Your task to perform on an android device: Do I have any events today? Image 0: 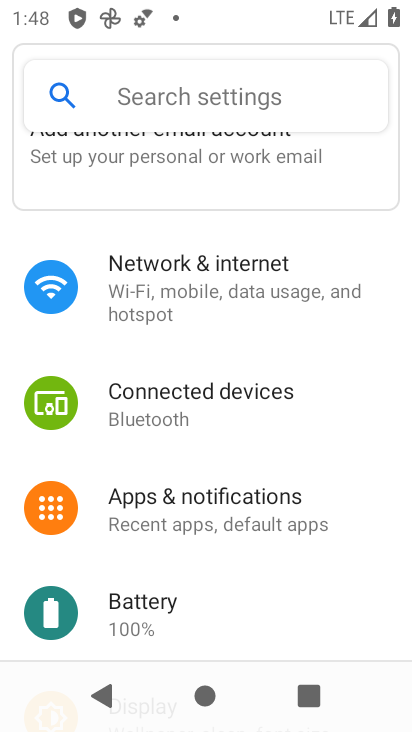
Step 0: press home button
Your task to perform on an android device: Do I have any events today? Image 1: 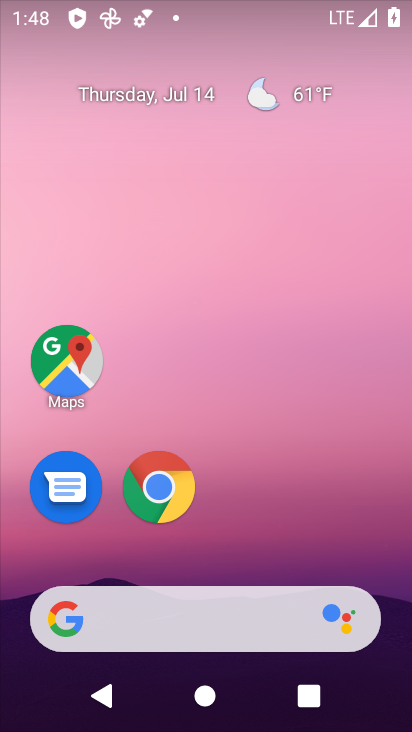
Step 1: drag from (346, 539) to (347, 106)
Your task to perform on an android device: Do I have any events today? Image 2: 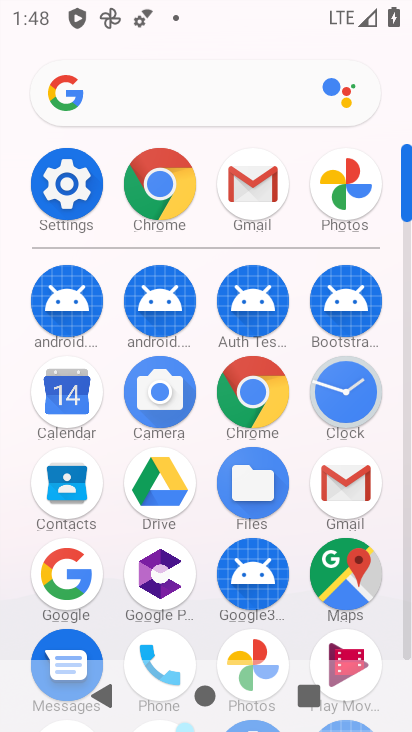
Step 2: click (68, 395)
Your task to perform on an android device: Do I have any events today? Image 3: 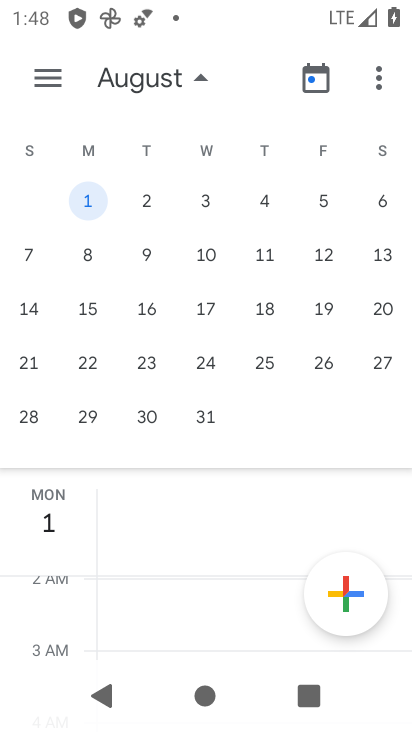
Step 3: drag from (259, 531) to (256, 443)
Your task to perform on an android device: Do I have any events today? Image 4: 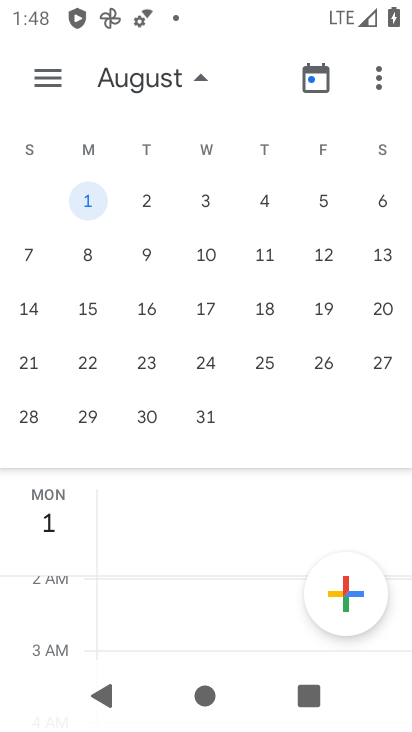
Step 4: drag from (269, 532) to (264, 427)
Your task to perform on an android device: Do I have any events today? Image 5: 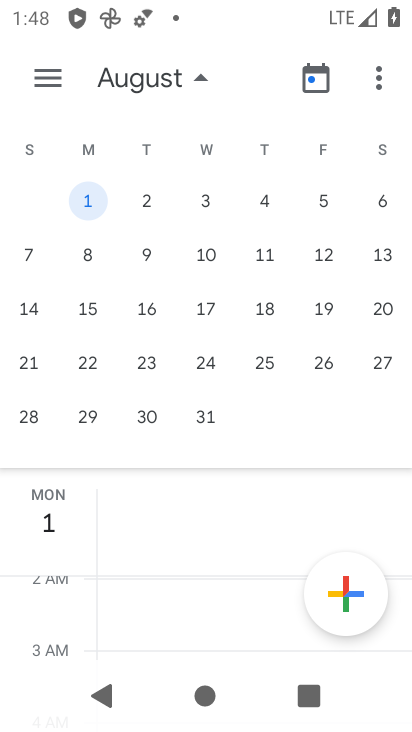
Step 5: drag from (226, 187) to (228, 331)
Your task to perform on an android device: Do I have any events today? Image 6: 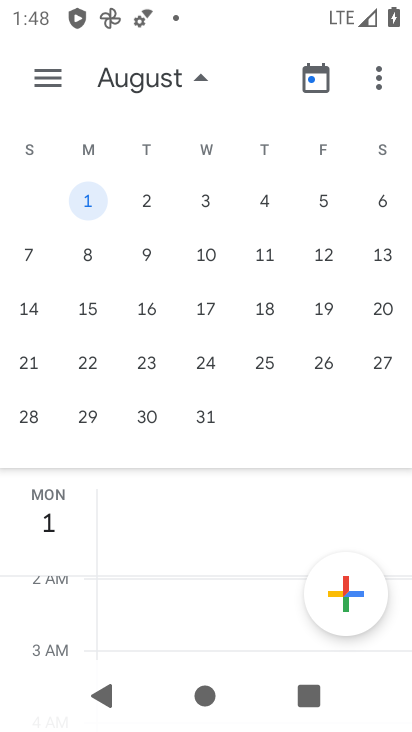
Step 6: drag from (251, 510) to (259, 295)
Your task to perform on an android device: Do I have any events today? Image 7: 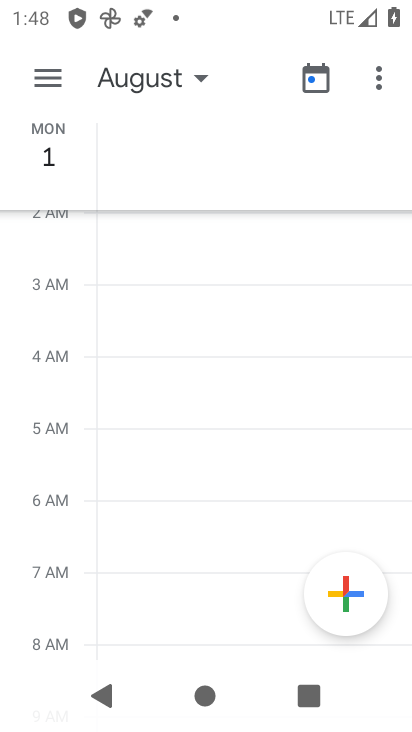
Step 7: drag from (264, 302) to (267, 431)
Your task to perform on an android device: Do I have any events today? Image 8: 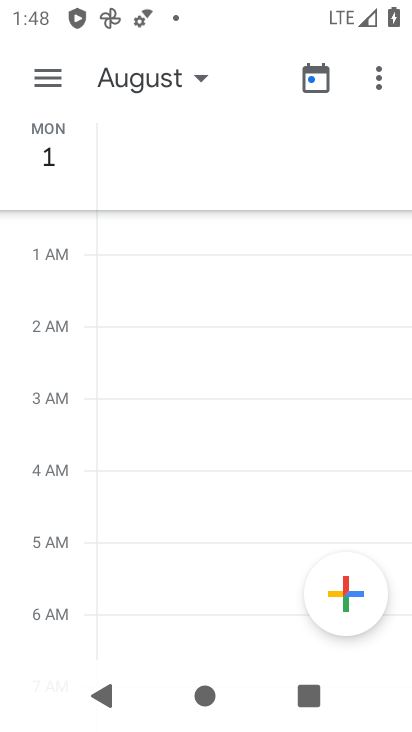
Step 8: drag from (256, 259) to (256, 440)
Your task to perform on an android device: Do I have any events today? Image 9: 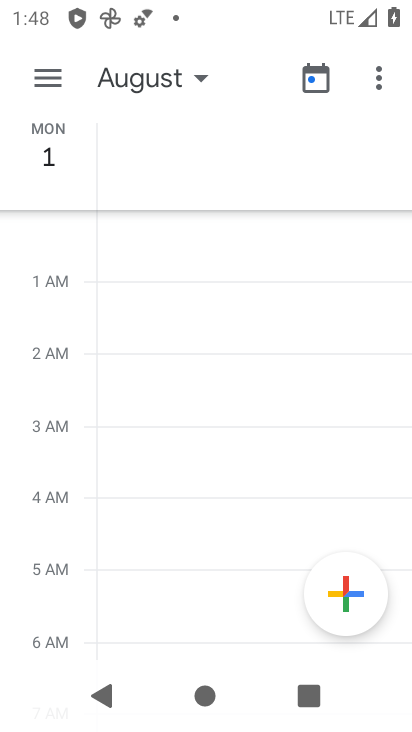
Step 9: click (203, 72)
Your task to perform on an android device: Do I have any events today? Image 10: 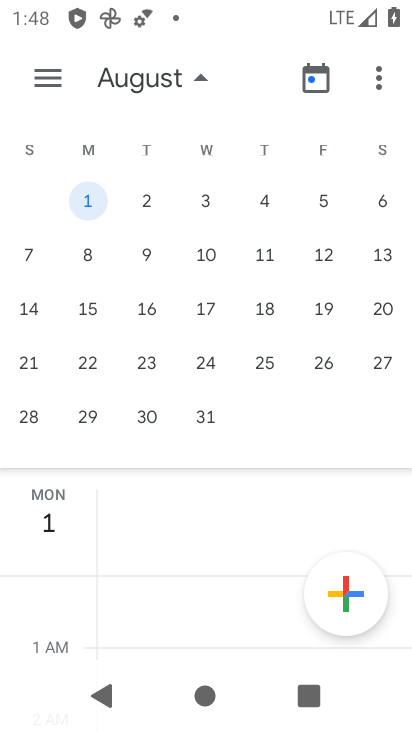
Step 10: drag from (113, 171) to (407, 265)
Your task to perform on an android device: Do I have any events today? Image 11: 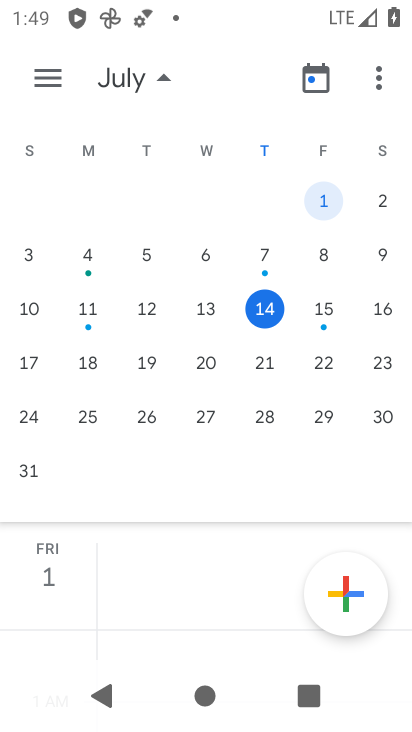
Step 11: click (270, 312)
Your task to perform on an android device: Do I have any events today? Image 12: 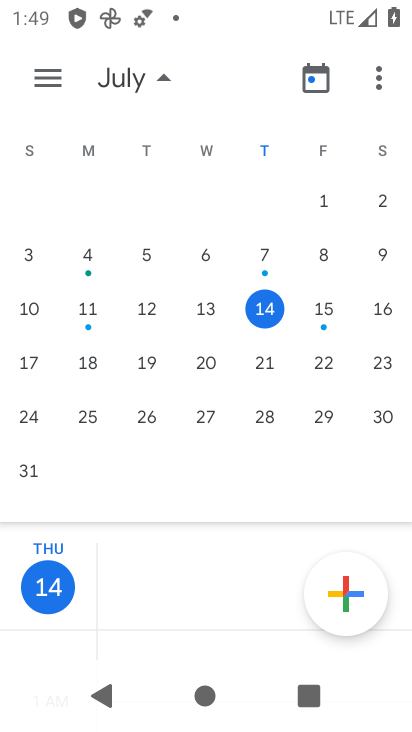
Step 12: drag from (210, 531) to (214, 275)
Your task to perform on an android device: Do I have any events today? Image 13: 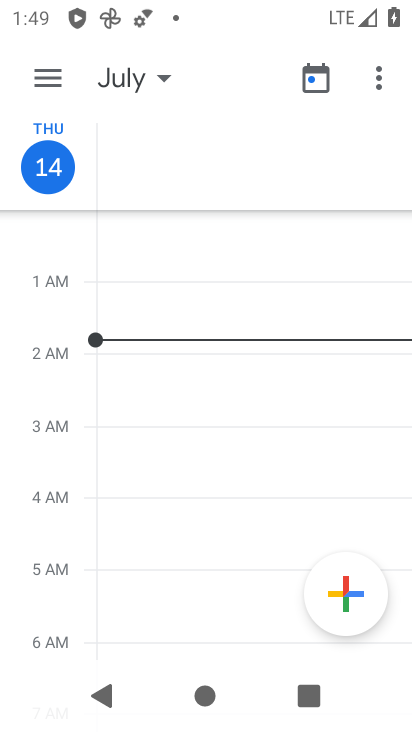
Step 13: drag from (233, 501) to (230, 357)
Your task to perform on an android device: Do I have any events today? Image 14: 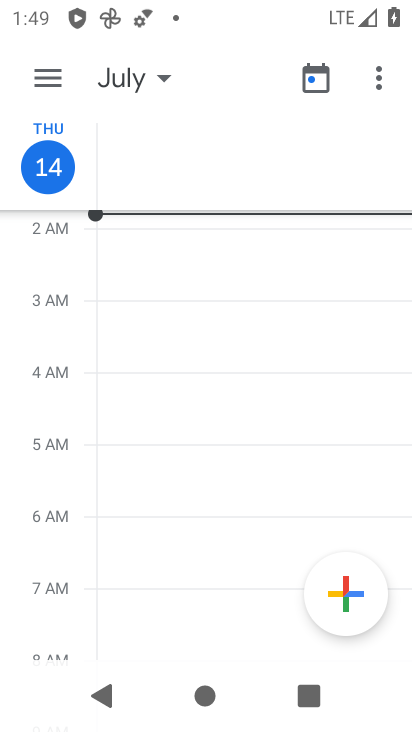
Step 14: click (50, 69)
Your task to perform on an android device: Do I have any events today? Image 15: 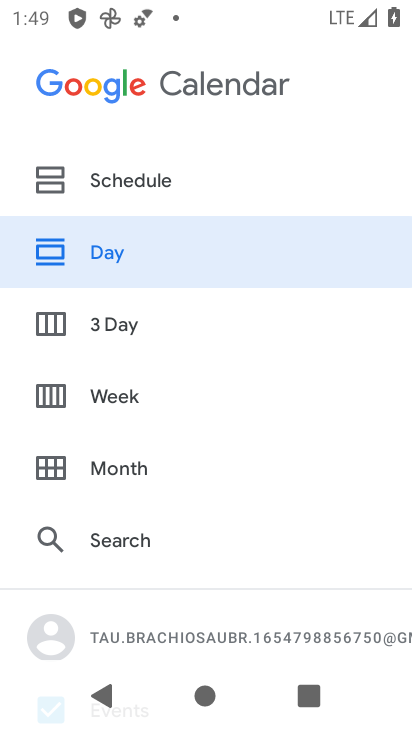
Step 15: click (125, 177)
Your task to perform on an android device: Do I have any events today? Image 16: 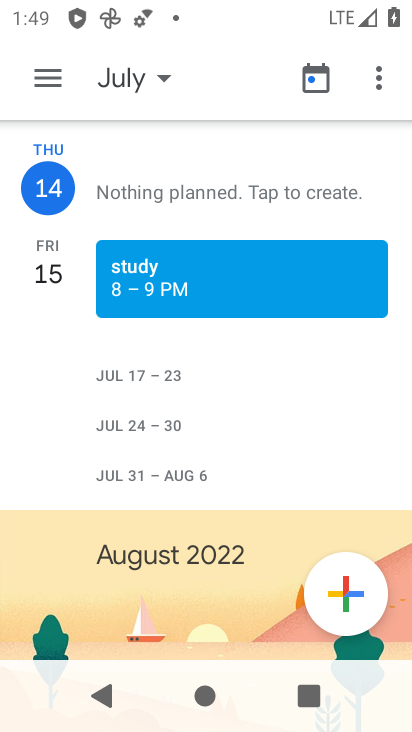
Step 16: task complete